Your task to perform on an android device: turn off data saver in the chrome app Image 0: 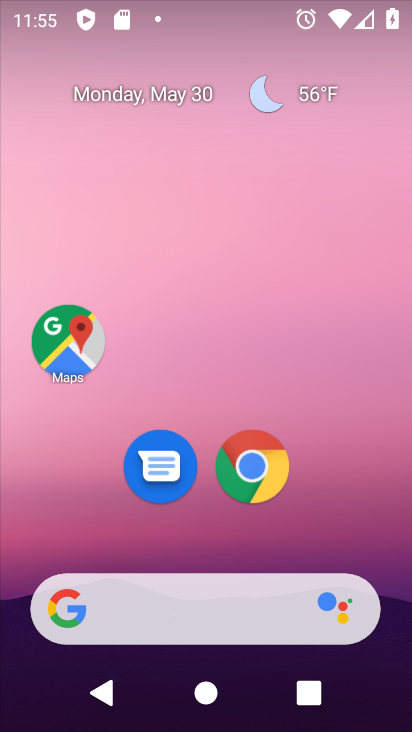
Step 0: click (241, 456)
Your task to perform on an android device: turn off data saver in the chrome app Image 1: 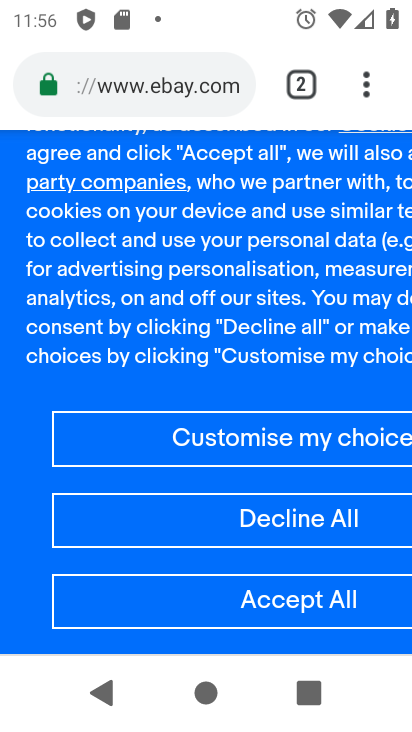
Step 1: click (367, 88)
Your task to perform on an android device: turn off data saver in the chrome app Image 2: 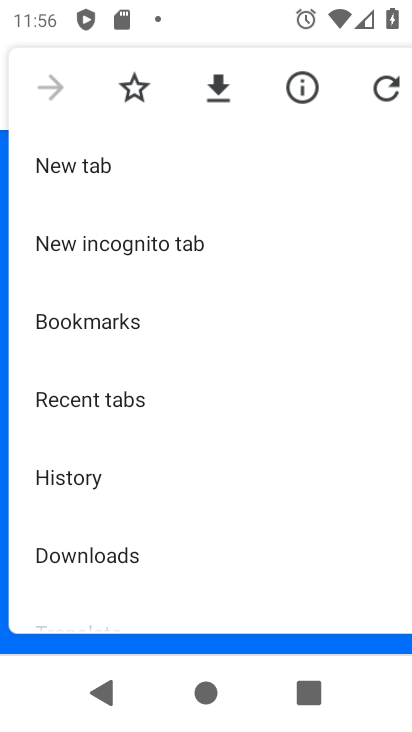
Step 2: drag from (80, 548) to (3, 7)
Your task to perform on an android device: turn off data saver in the chrome app Image 3: 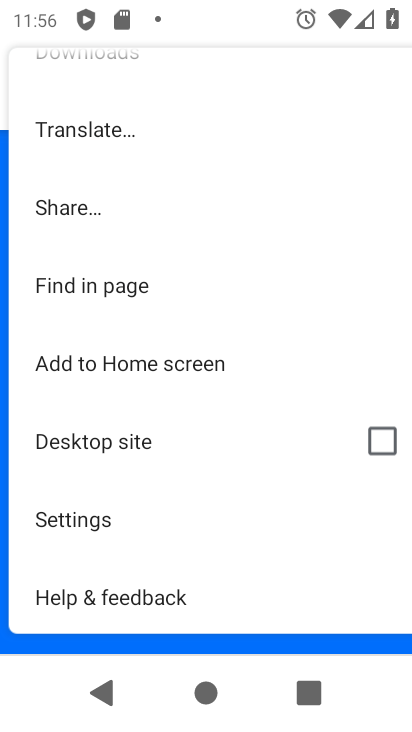
Step 3: click (112, 521)
Your task to perform on an android device: turn off data saver in the chrome app Image 4: 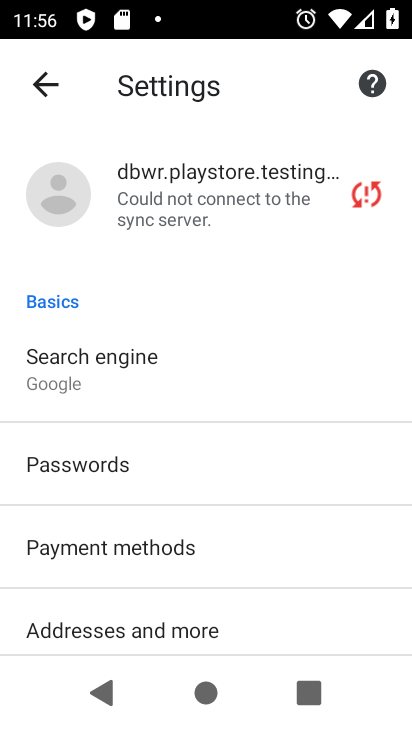
Step 4: drag from (178, 570) to (0, 340)
Your task to perform on an android device: turn off data saver in the chrome app Image 5: 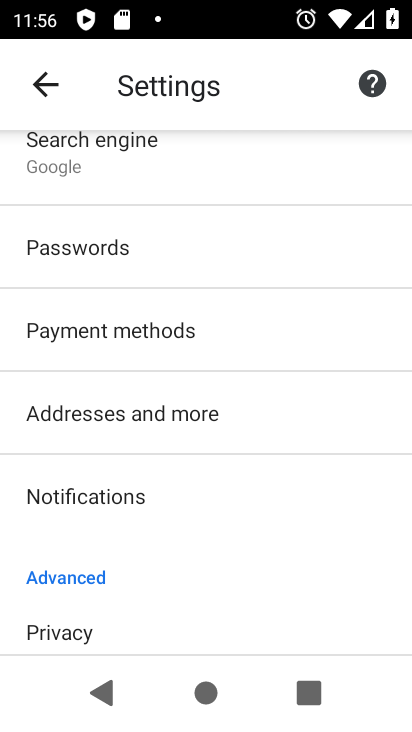
Step 5: drag from (123, 552) to (27, 5)
Your task to perform on an android device: turn off data saver in the chrome app Image 6: 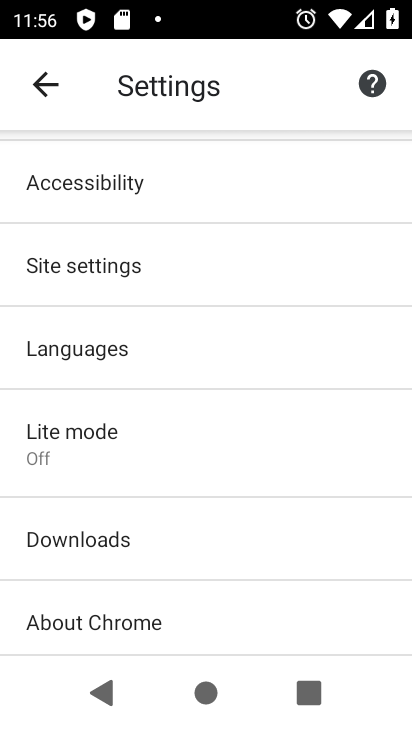
Step 6: click (103, 431)
Your task to perform on an android device: turn off data saver in the chrome app Image 7: 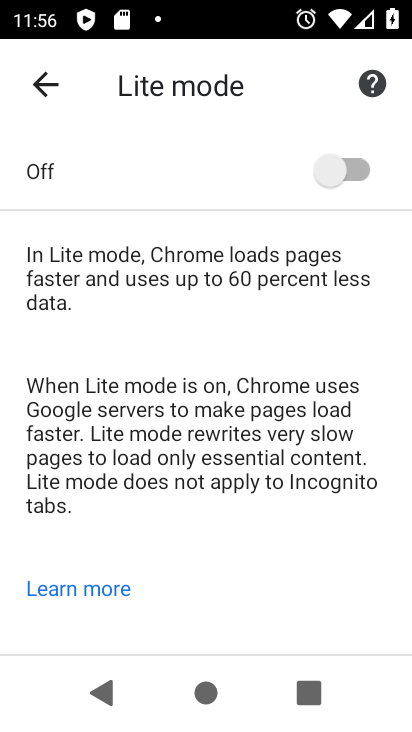
Step 7: task complete